Your task to perform on an android device: toggle airplane mode Image 0: 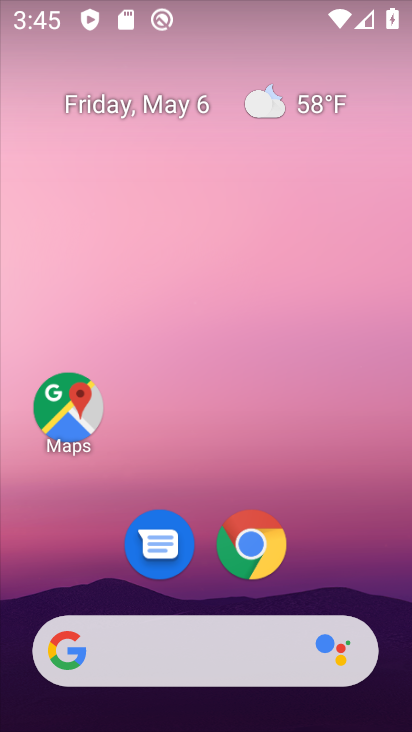
Step 0: drag from (131, 589) to (351, 4)
Your task to perform on an android device: toggle airplane mode Image 1: 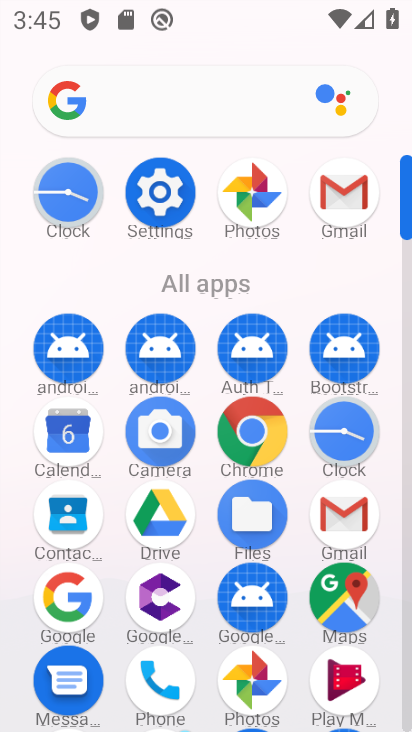
Step 1: drag from (216, 633) to (308, 351)
Your task to perform on an android device: toggle airplane mode Image 2: 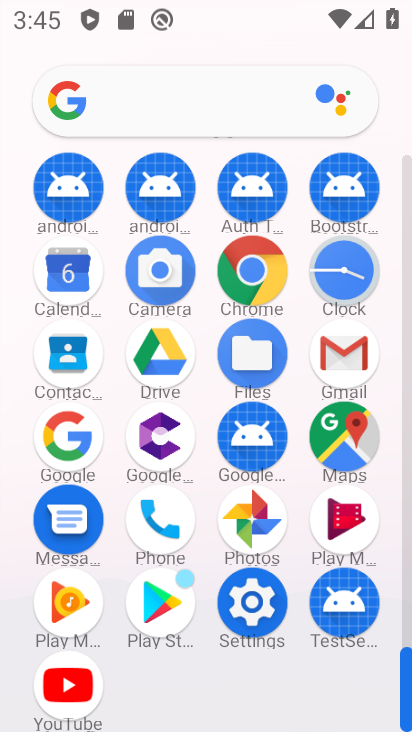
Step 2: click (253, 616)
Your task to perform on an android device: toggle airplane mode Image 3: 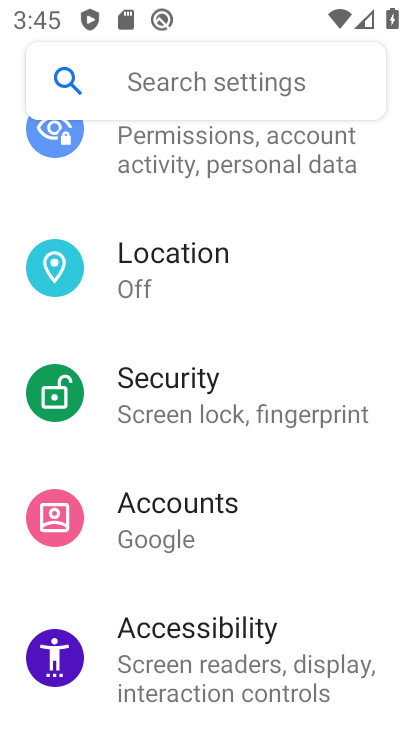
Step 3: drag from (247, 249) to (232, 686)
Your task to perform on an android device: toggle airplane mode Image 4: 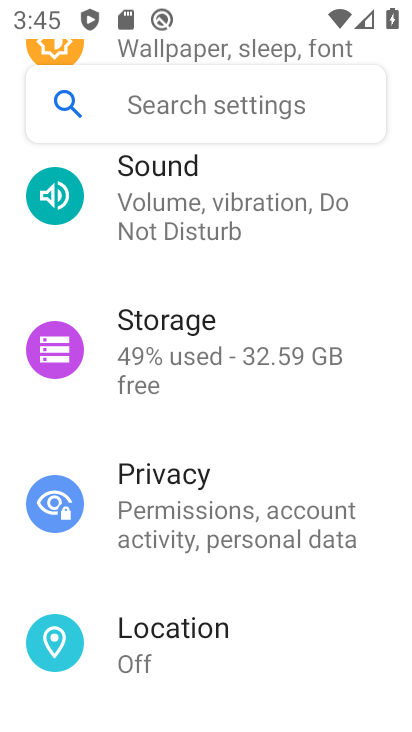
Step 4: drag from (255, 247) to (249, 650)
Your task to perform on an android device: toggle airplane mode Image 5: 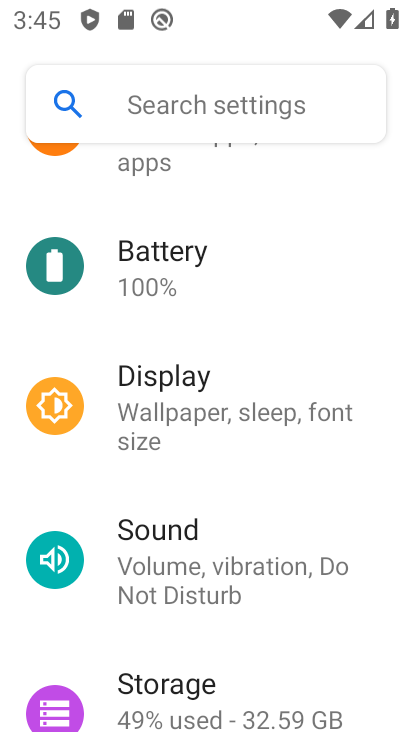
Step 5: drag from (299, 244) to (280, 596)
Your task to perform on an android device: toggle airplane mode Image 6: 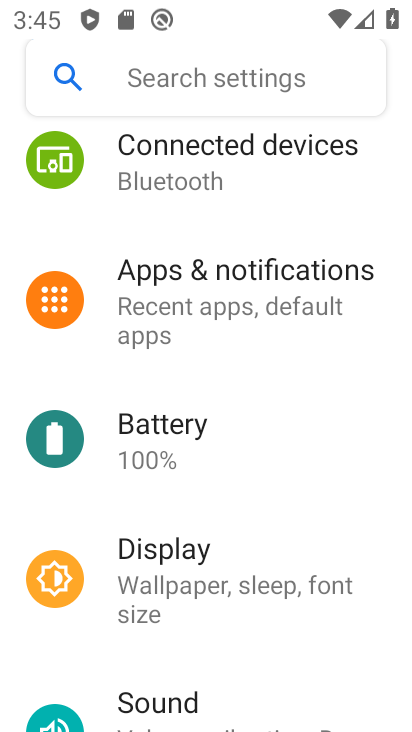
Step 6: drag from (282, 291) to (216, 644)
Your task to perform on an android device: toggle airplane mode Image 7: 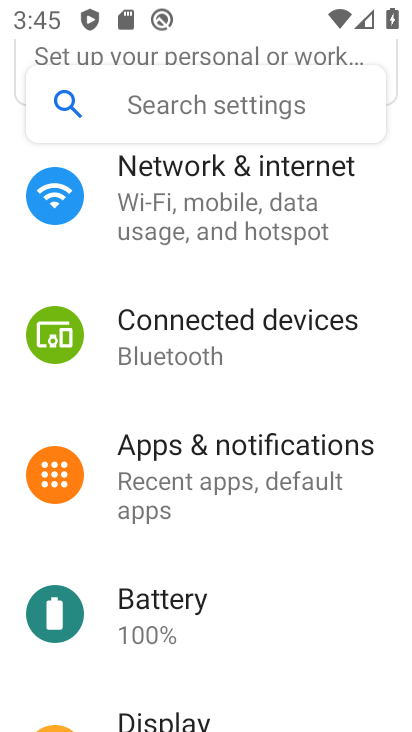
Step 7: click (237, 245)
Your task to perform on an android device: toggle airplane mode Image 8: 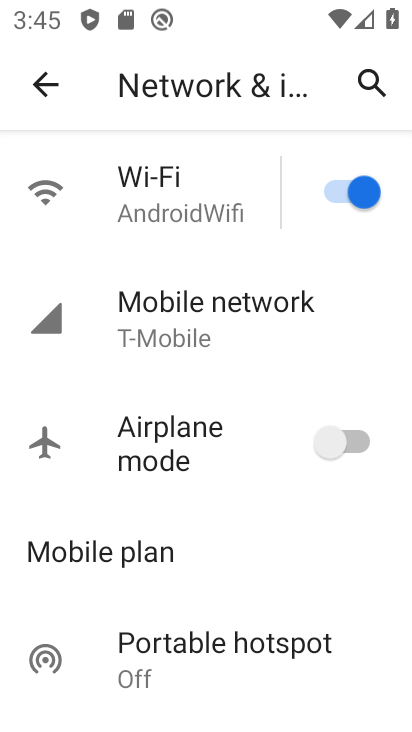
Step 8: click (350, 444)
Your task to perform on an android device: toggle airplane mode Image 9: 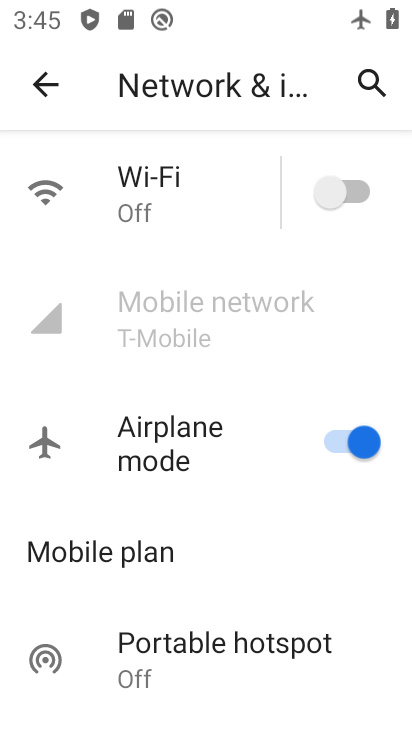
Step 9: task complete